Your task to perform on an android device: Find coffee shops on Maps Image 0: 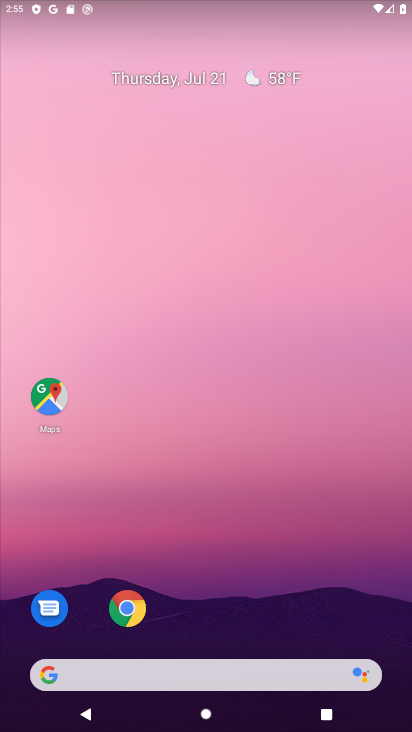
Step 0: press home button
Your task to perform on an android device: Find coffee shops on Maps Image 1: 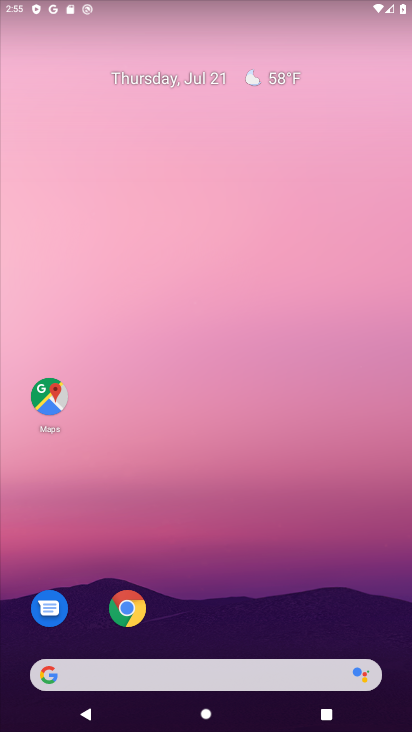
Step 1: click (46, 382)
Your task to perform on an android device: Find coffee shops on Maps Image 2: 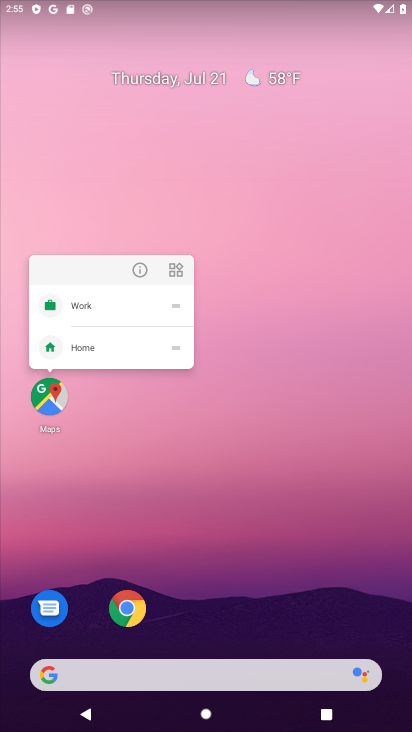
Step 2: click (46, 392)
Your task to perform on an android device: Find coffee shops on Maps Image 3: 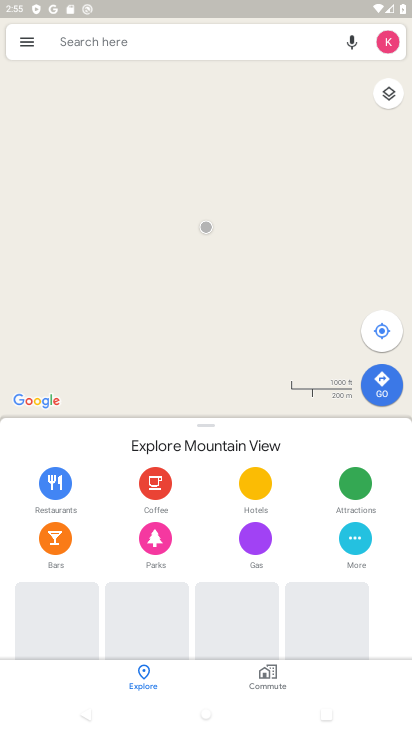
Step 3: click (94, 40)
Your task to perform on an android device: Find coffee shops on Maps Image 4: 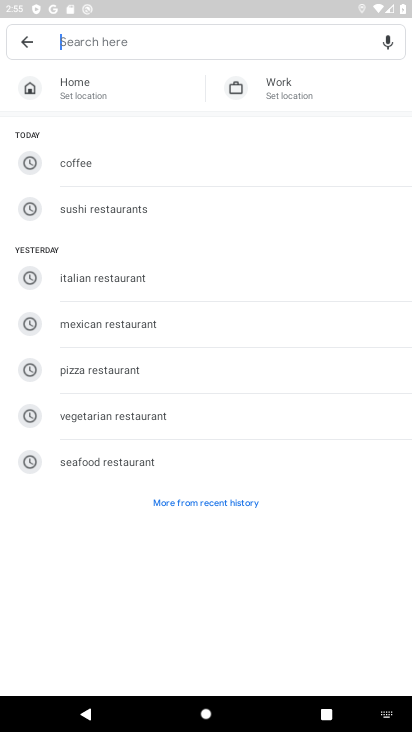
Step 4: click (107, 35)
Your task to perform on an android device: Find coffee shops on Maps Image 5: 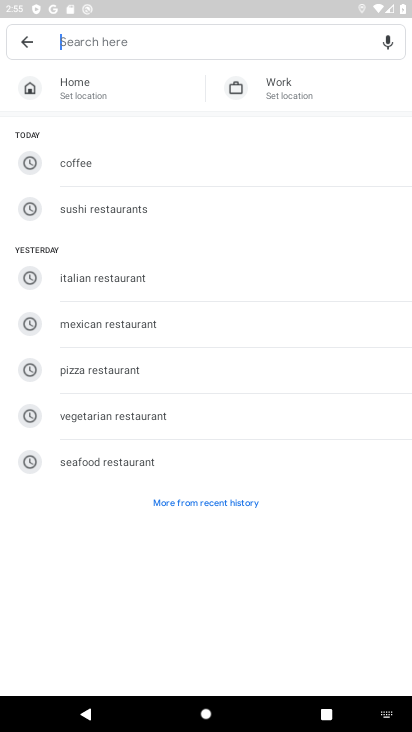
Step 5: click (100, 158)
Your task to perform on an android device: Find coffee shops on Maps Image 6: 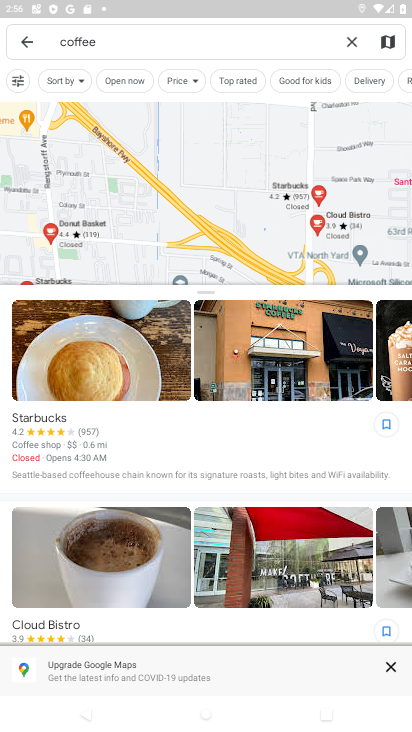
Step 6: task complete